Your task to perform on an android device: Search for seafood restaurants on Google Maps Image 0: 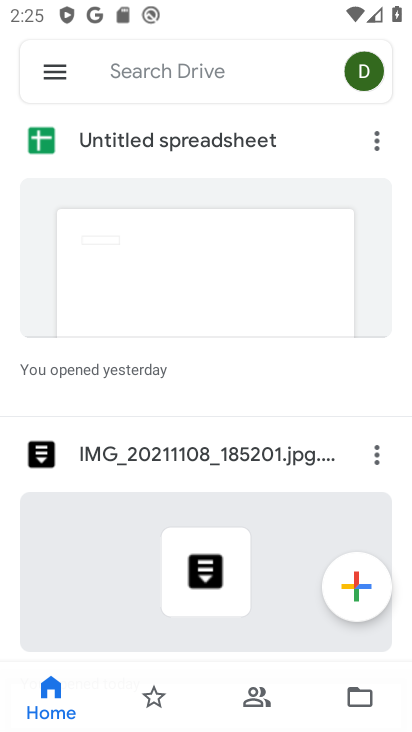
Step 0: press home button
Your task to perform on an android device: Search for seafood restaurants on Google Maps Image 1: 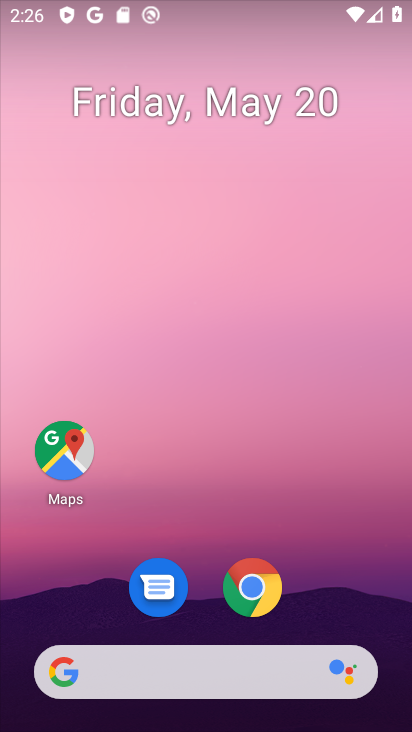
Step 1: press home button
Your task to perform on an android device: Search for seafood restaurants on Google Maps Image 2: 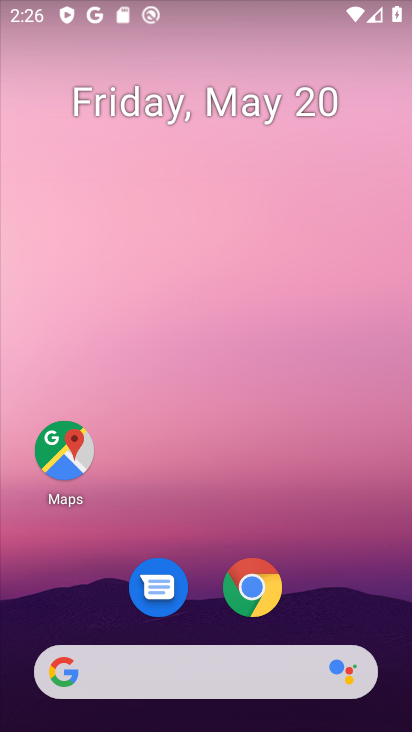
Step 2: click (66, 448)
Your task to perform on an android device: Search for seafood restaurants on Google Maps Image 3: 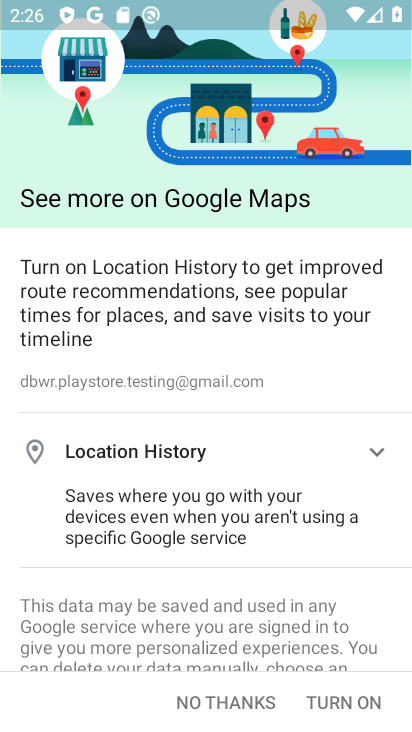
Step 3: drag from (323, 690) to (290, 612)
Your task to perform on an android device: Search for seafood restaurants on Google Maps Image 4: 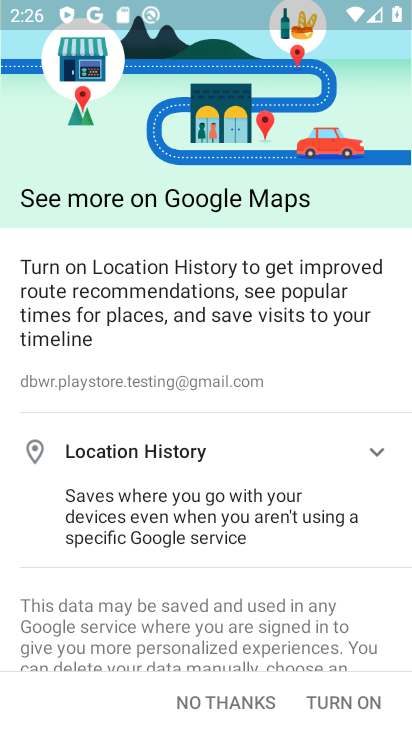
Step 4: click (310, 699)
Your task to perform on an android device: Search for seafood restaurants on Google Maps Image 5: 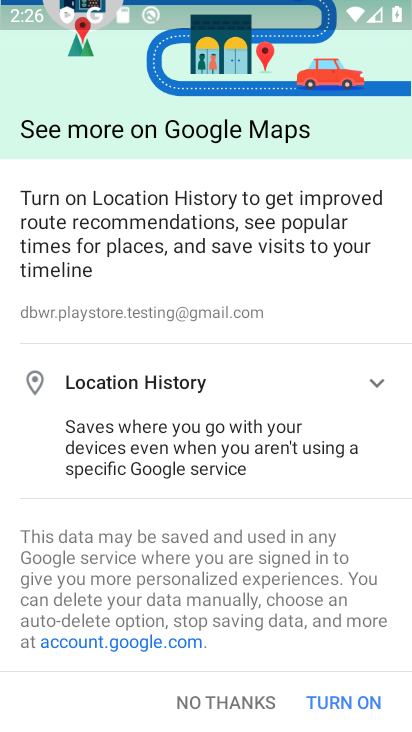
Step 5: click (329, 705)
Your task to perform on an android device: Search for seafood restaurants on Google Maps Image 6: 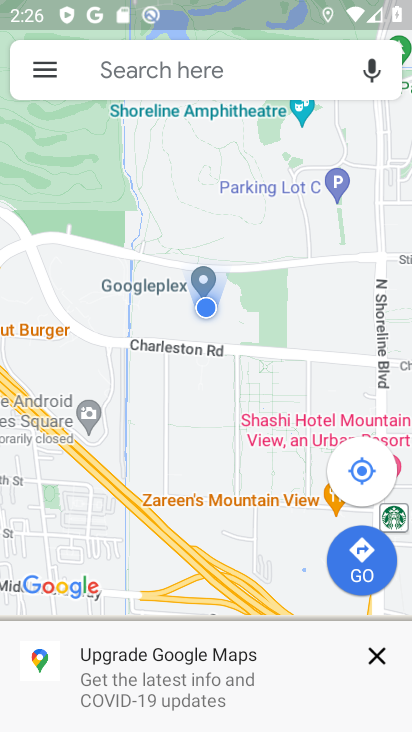
Step 6: click (156, 61)
Your task to perform on an android device: Search for seafood restaurants on Google Maps Image 7: 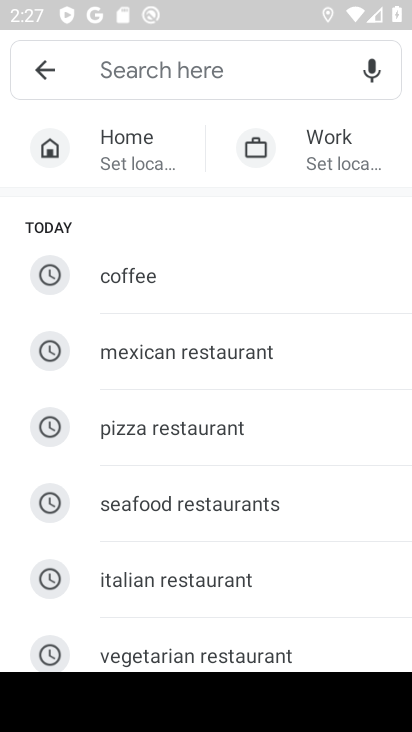
Step 7: type " seafood restaurants"
Your task to perform on an android device: Search for seafood restaurants on Google Maps Image 8: 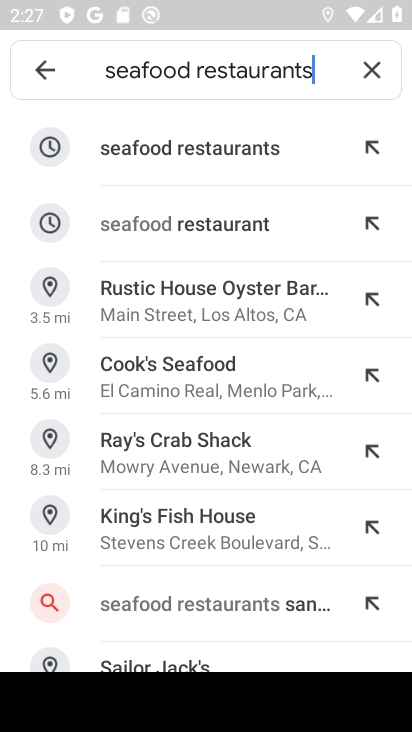
Step 8: click (184, 147)
Your task to perform on an android device: Search for seafood restaurants on Google Maps Image 9: 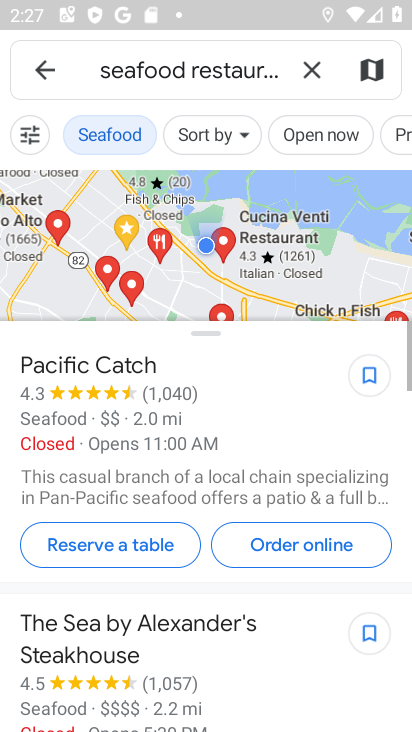
Step 9: task complete